Your task to perform on an android device: Search for Italian restaurants on Maps Image 0: 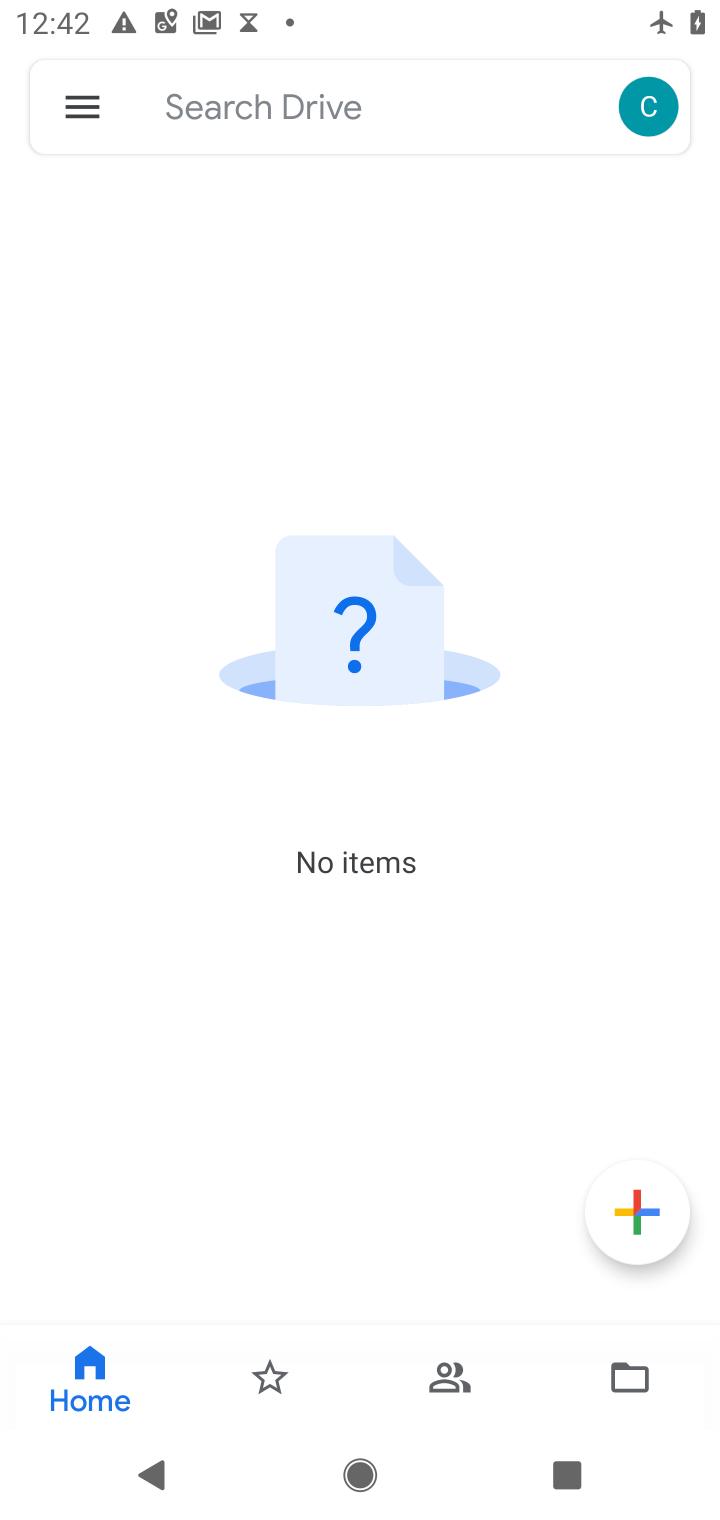
Step 0: press home button
Your task to perform on an android device: Search for Italian restaurants on Maps Image 1: 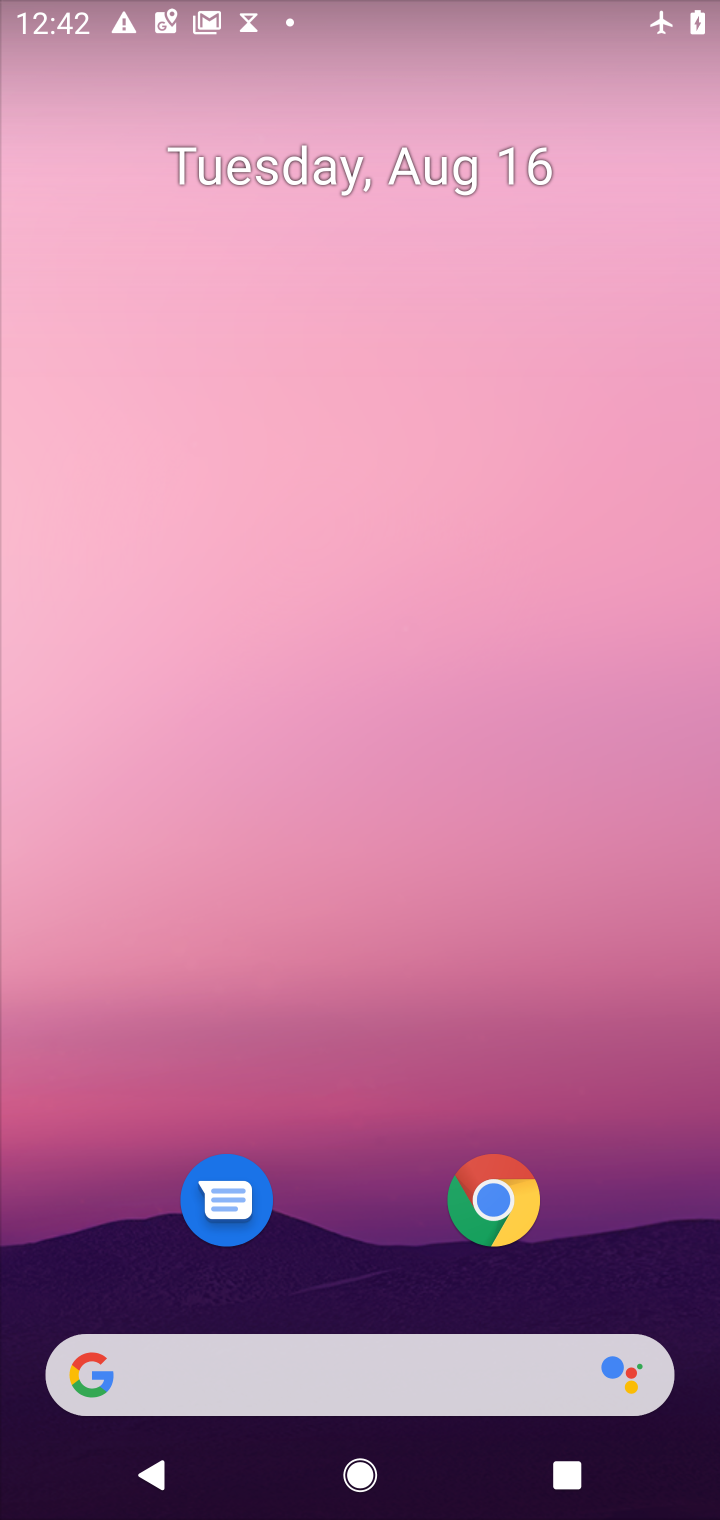
Step 1: drag from (344, 1217) to (361, 402)
Your task to perform on an android device: Search for Italian restaurants on Maps Image 2: 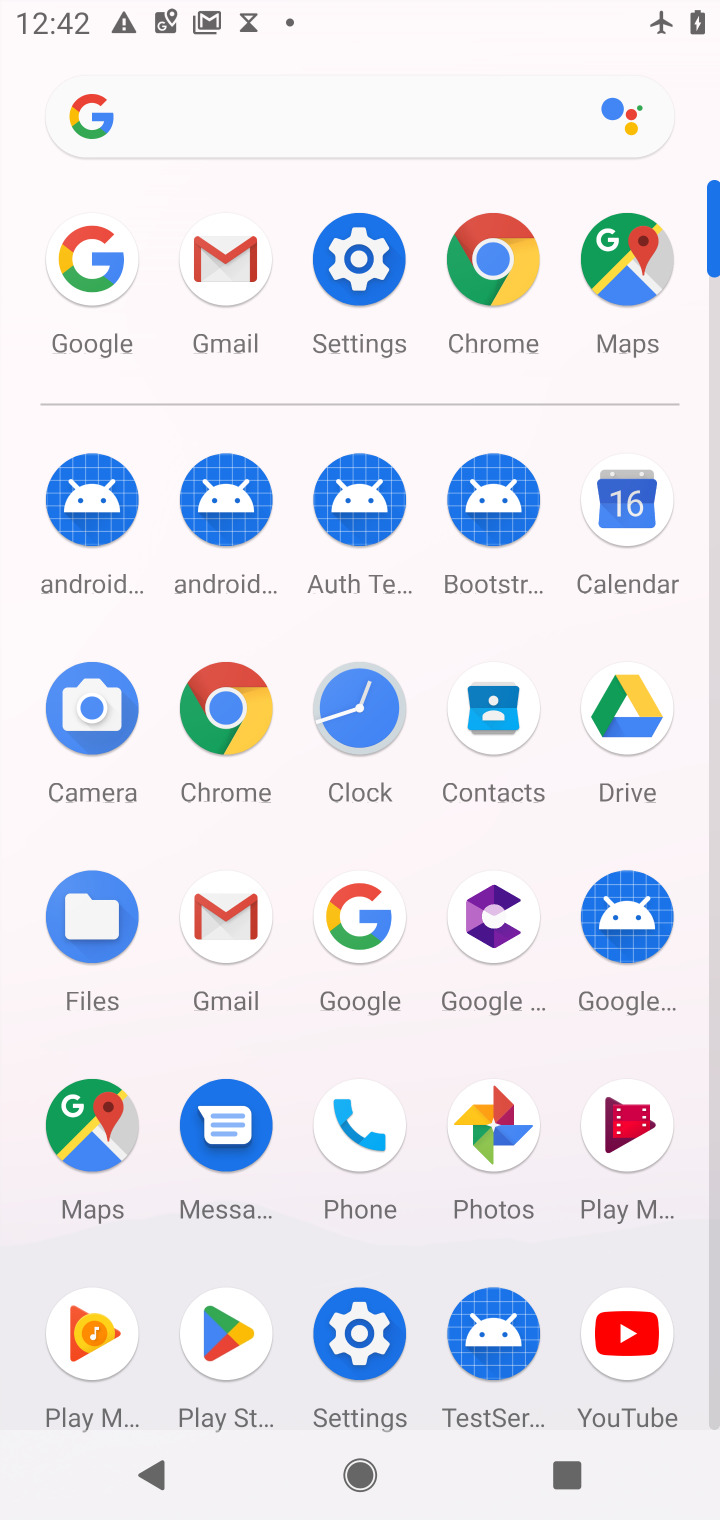
Step 2: click (622, 313)
Your task to perform on an android device: Search for Italian restaurants on Maps Image 3: 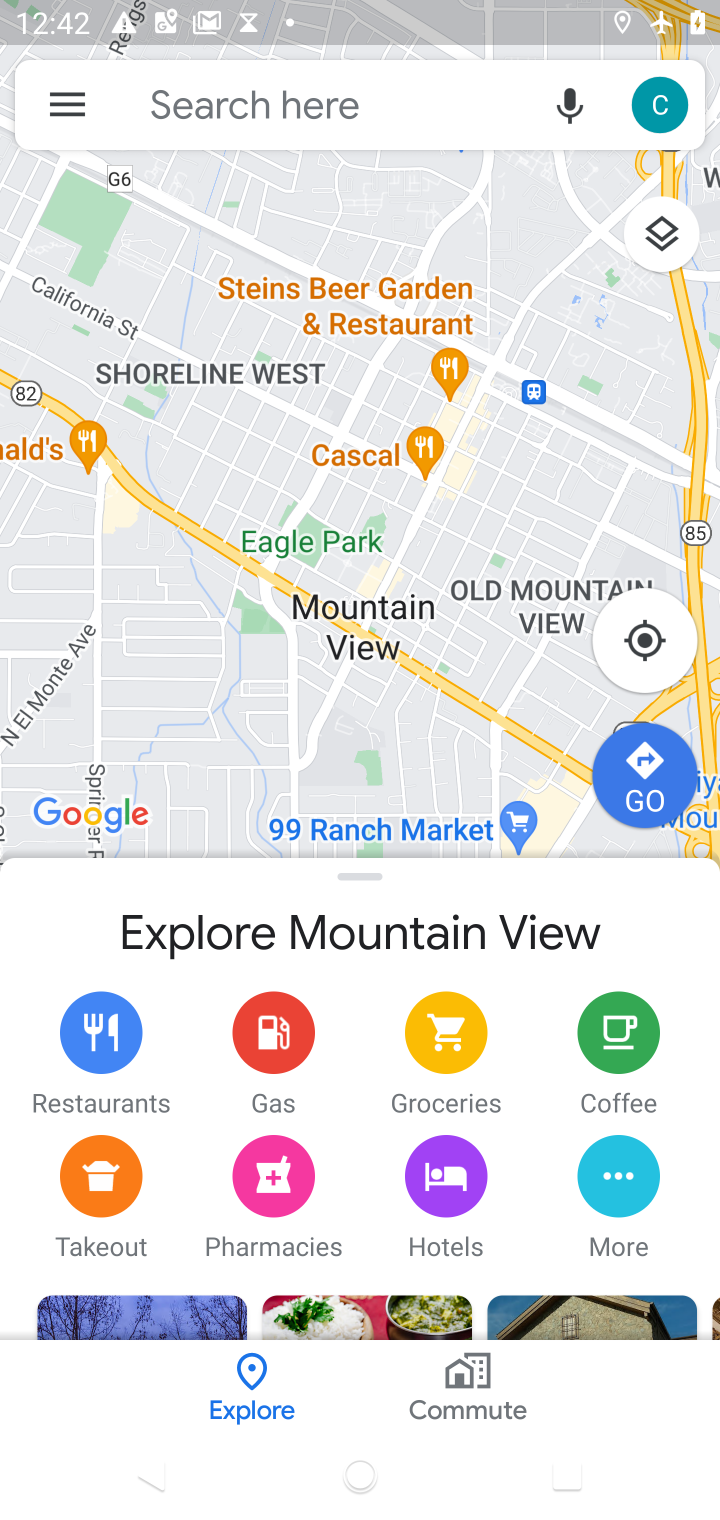
Step 3: click (264, 86)
Your task to perform on an android device: Search for Italian restaurants on Maps Image 4: 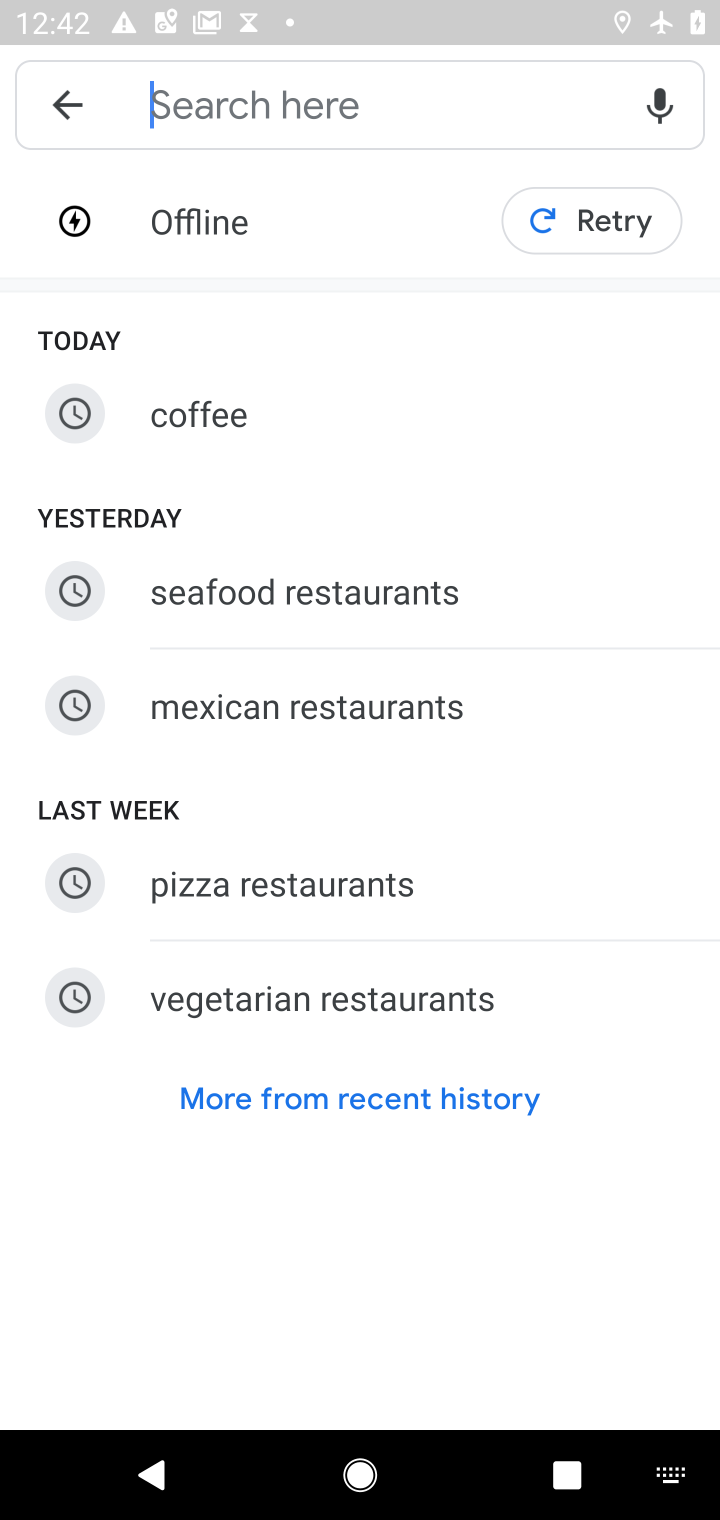
Step 4: type "Italian restaurants"
Your task to perform on an android device: Search for Italian restaurants on Maps Image 5: 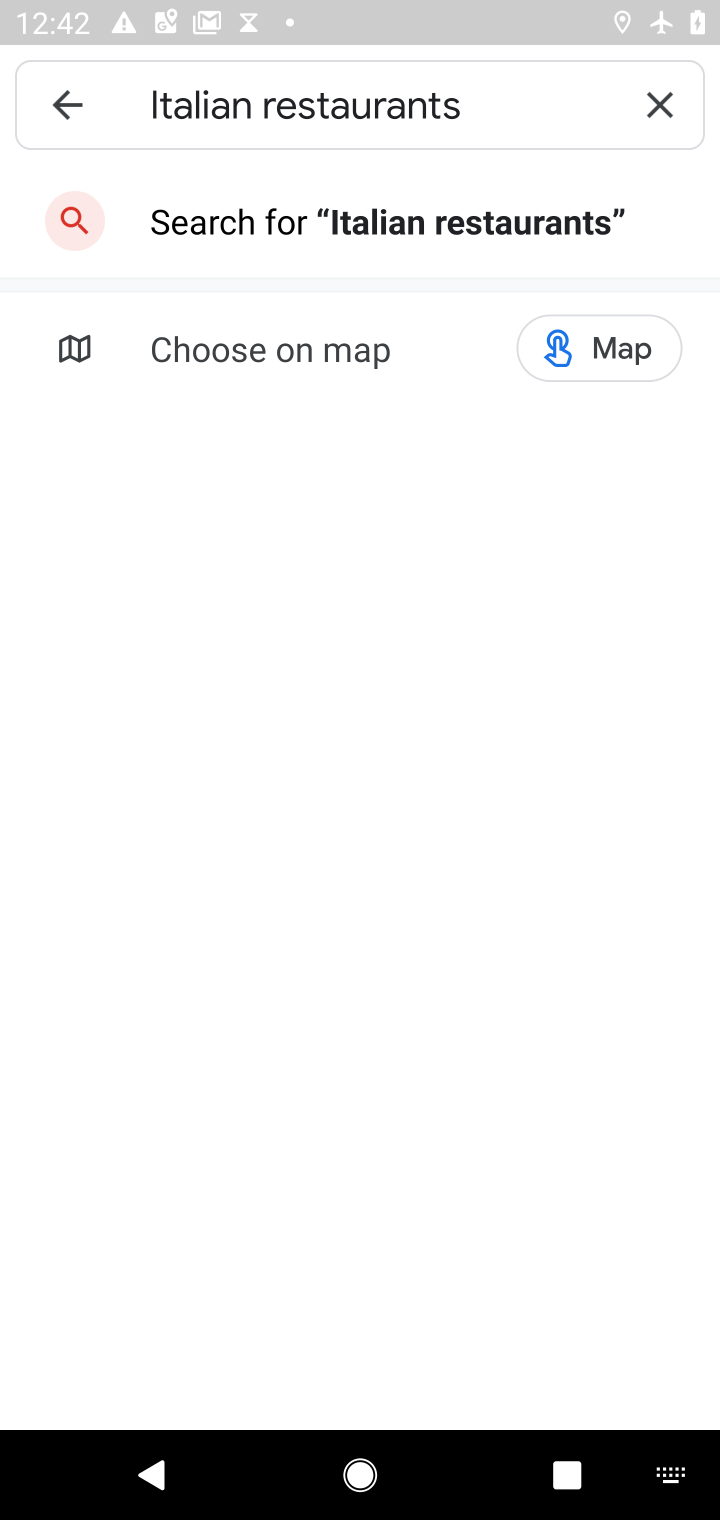
Step 5: click (378, 201)
Your task to perform on an android device: Search for Italian restaurants on Maps Image 6: 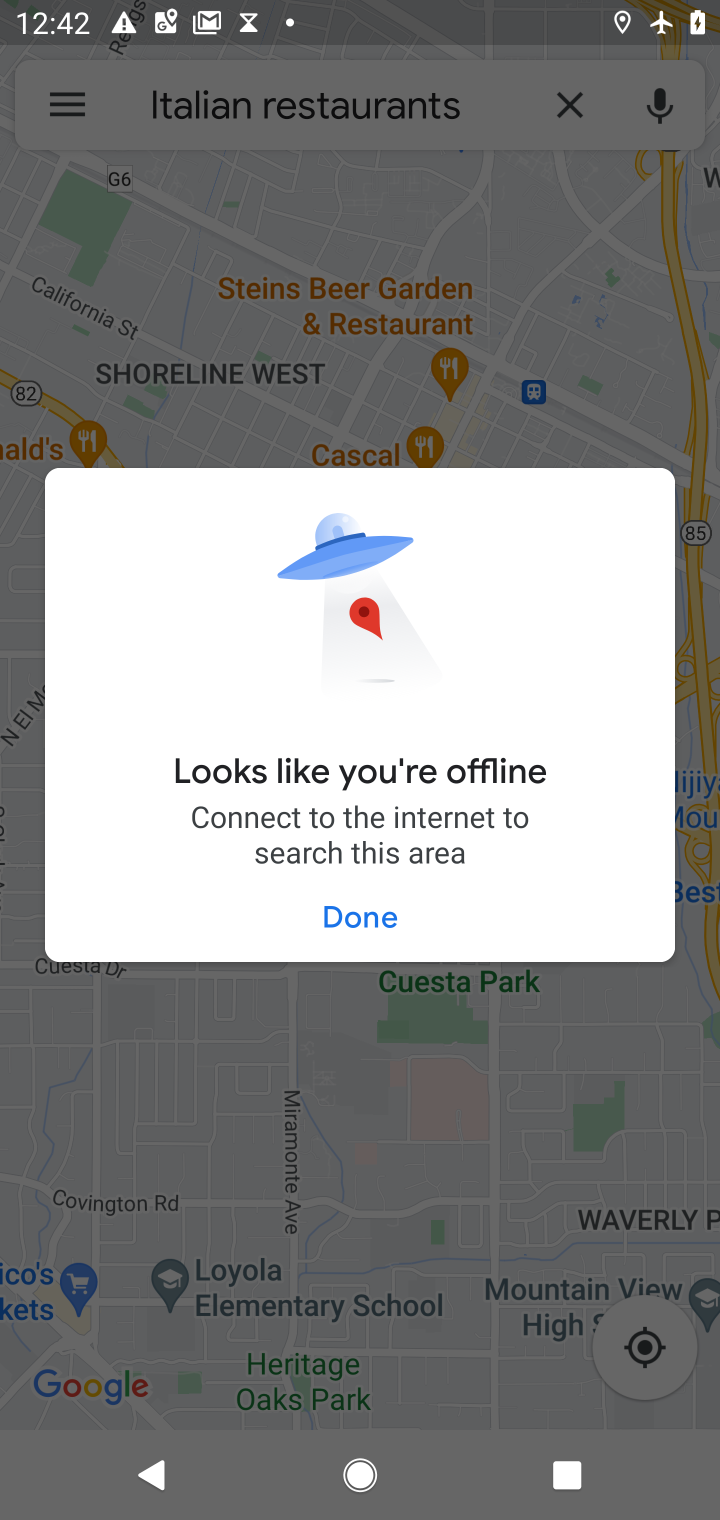
Step 6: task complete